Your task to perform on an android device: What's the weather going to be tomorrow? Image 0: 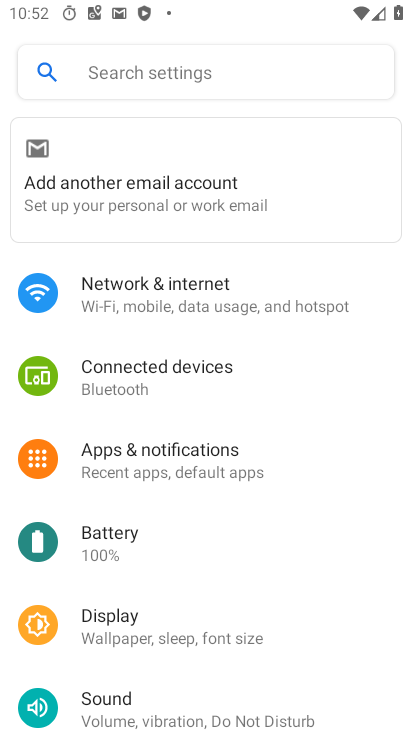
Step 0: press back button
Your task to perform on an android device: What's the weather going to be tomorrow? Image 1: 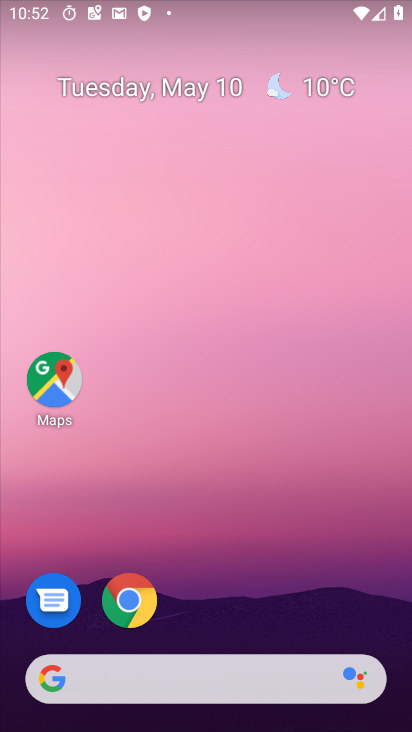
Step 1: drag from (258, 547) to (239, 52)
Your task to perform on an android device: What's the weather going to be tomorrow? Image 2: 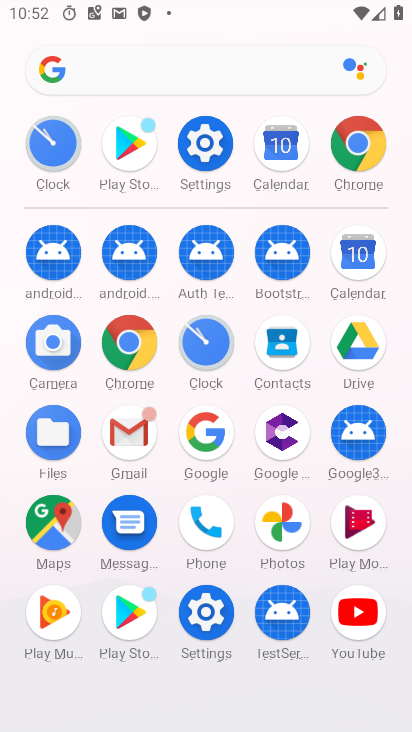
Step 2: drag from (3, 511) to (3, 124)
Your task to perform on an android device: What's the weather going to be tomorrow? Image 3: 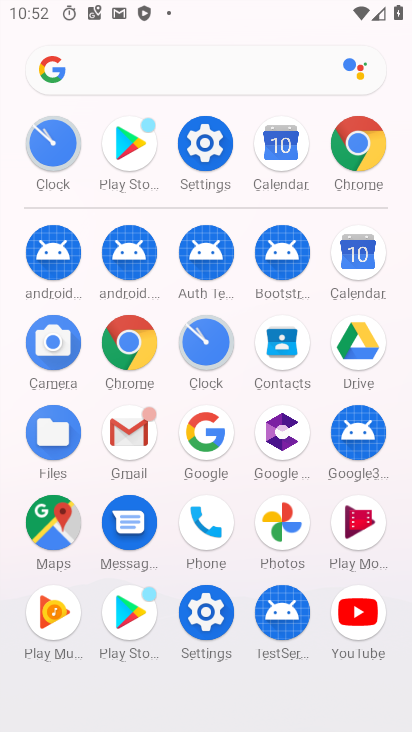
Step 3: click (124, 335)
Your task to perform on an android device: What's the weather going to be tomorrow? Image 4: 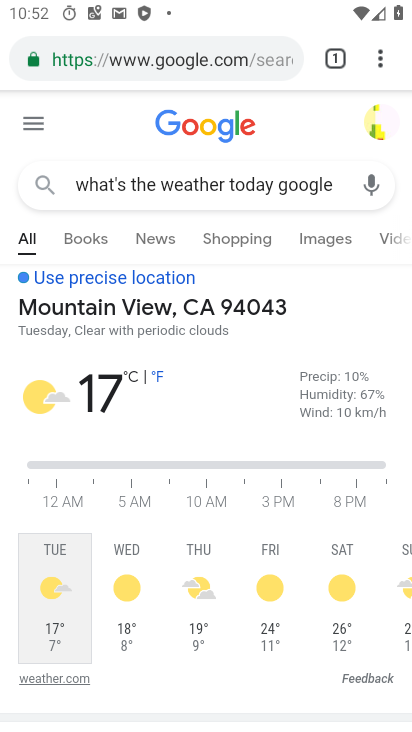
Step 4: click (193, 53)
Your task to perform on an android device: What's the weather going to be tomorrow? Image 5: 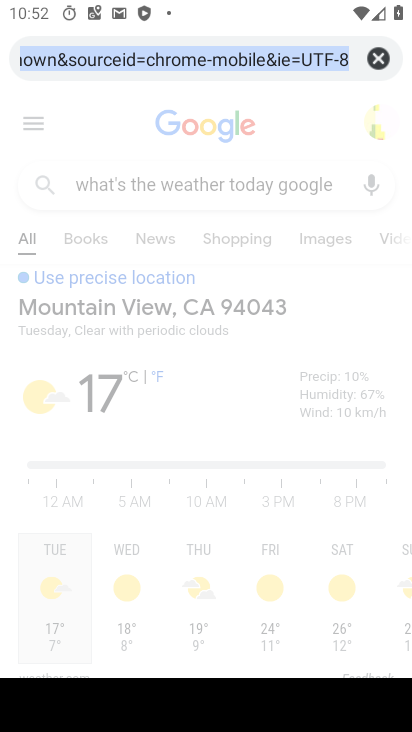
Step 5: click (376, 54)
Your task to perform on an android device: What's the weather going to be tomorrow? Image 6: 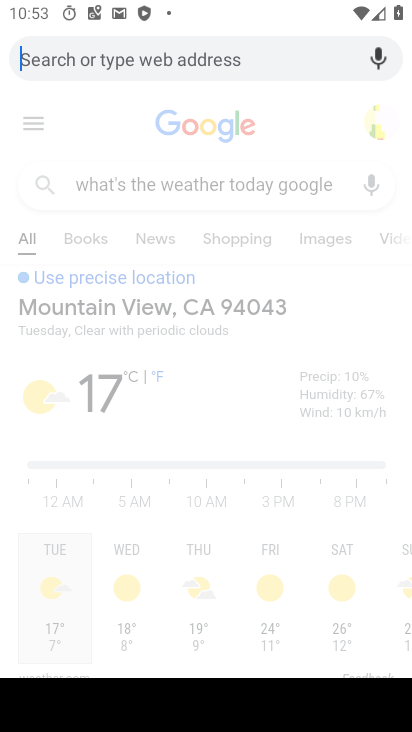
Step 6: type "What's the weather going to be tomorrow?"
Your task to perform on an android device: What's the weather going to be tomorrow? Image 7: 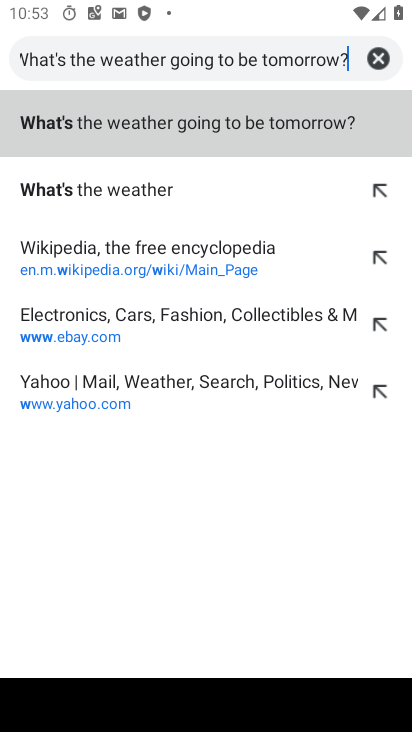
Step 7: type ""
Your task to perform on an android device: What's the weather going to be tomorrow? Image 8: 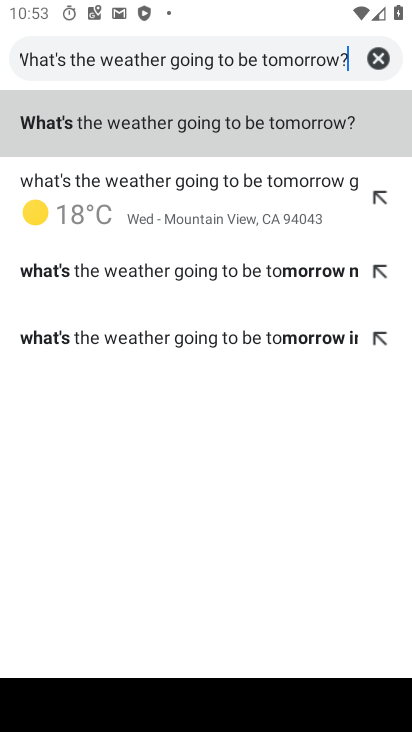
Step 8: click (119, 188)
Your task to perform on an android device: What's the weather going to be tomorrow? Image 9: 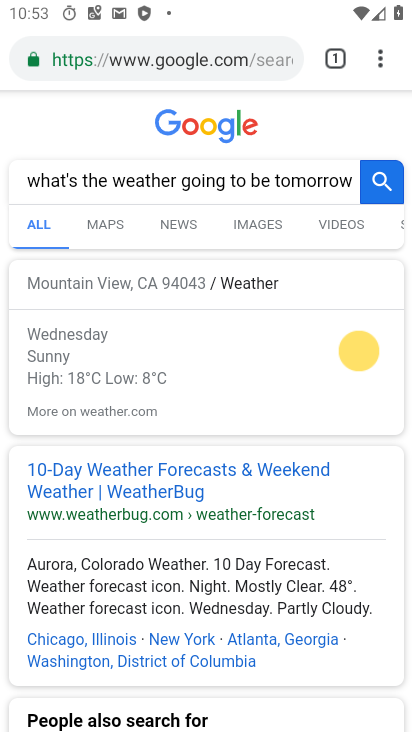
Step 9: task complete